Your task to perform on an android device: Add razer thresher to the cart on ebay.com Image 0: 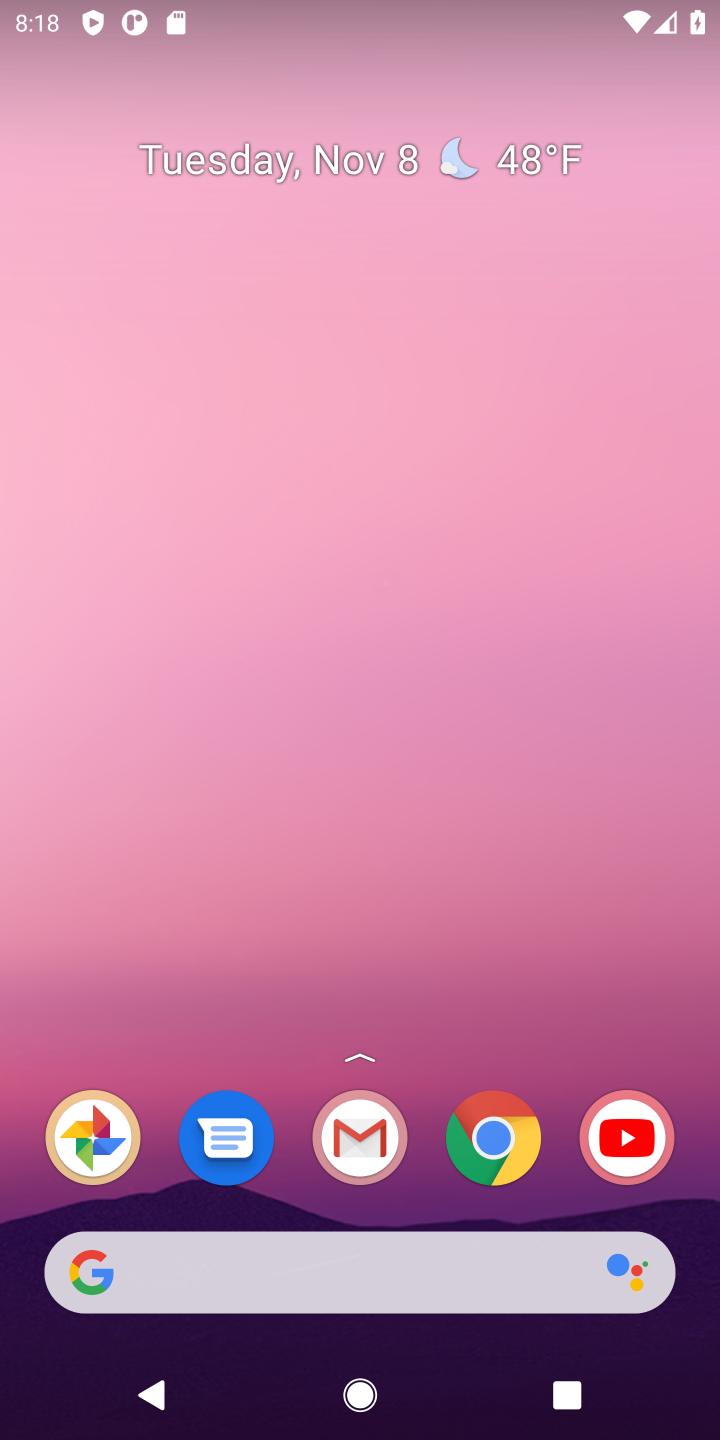
Step 0: click (474, 1132)
Your task to perform on an android device: Add razer thresher to the cart on ebay.com Image 1: 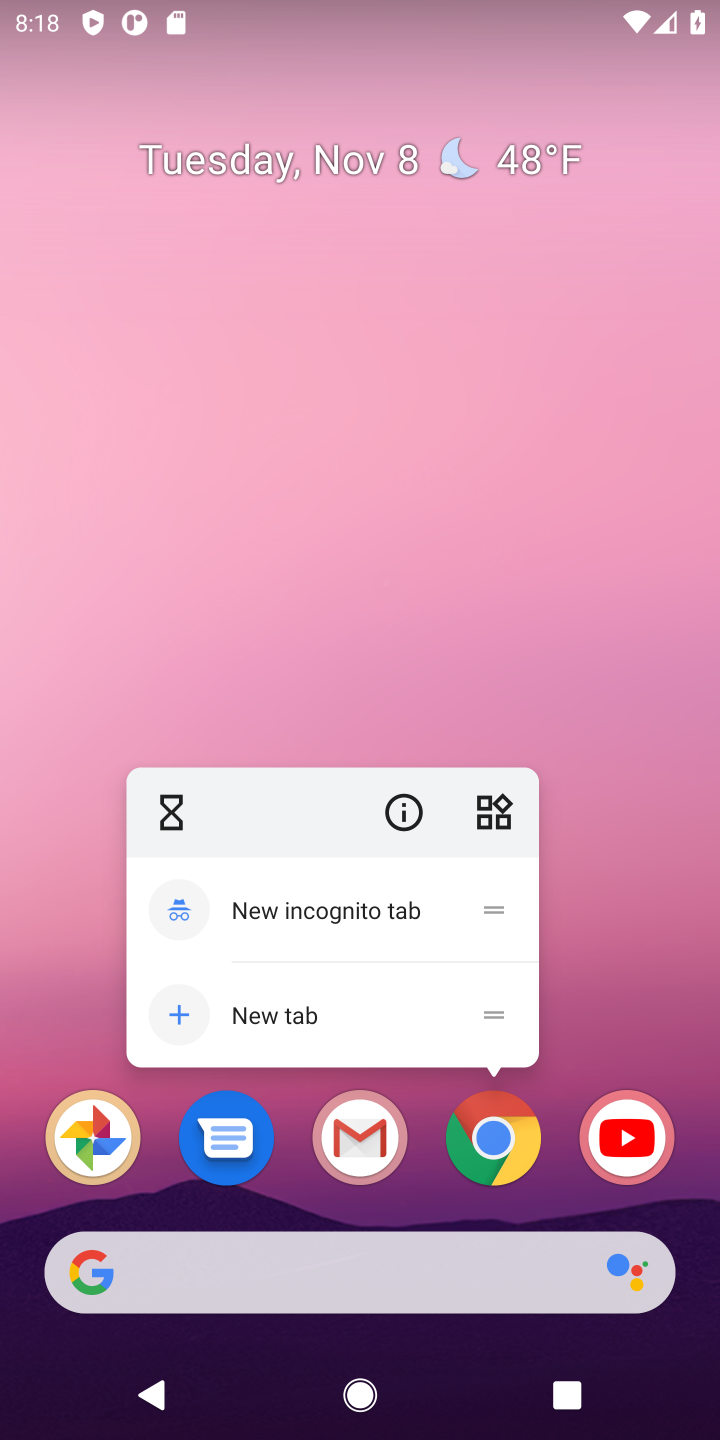
Step 1: click (506, 1131)
Your task to perform on an android device: Add razer thresher to the cart on ebay.com Image 2: 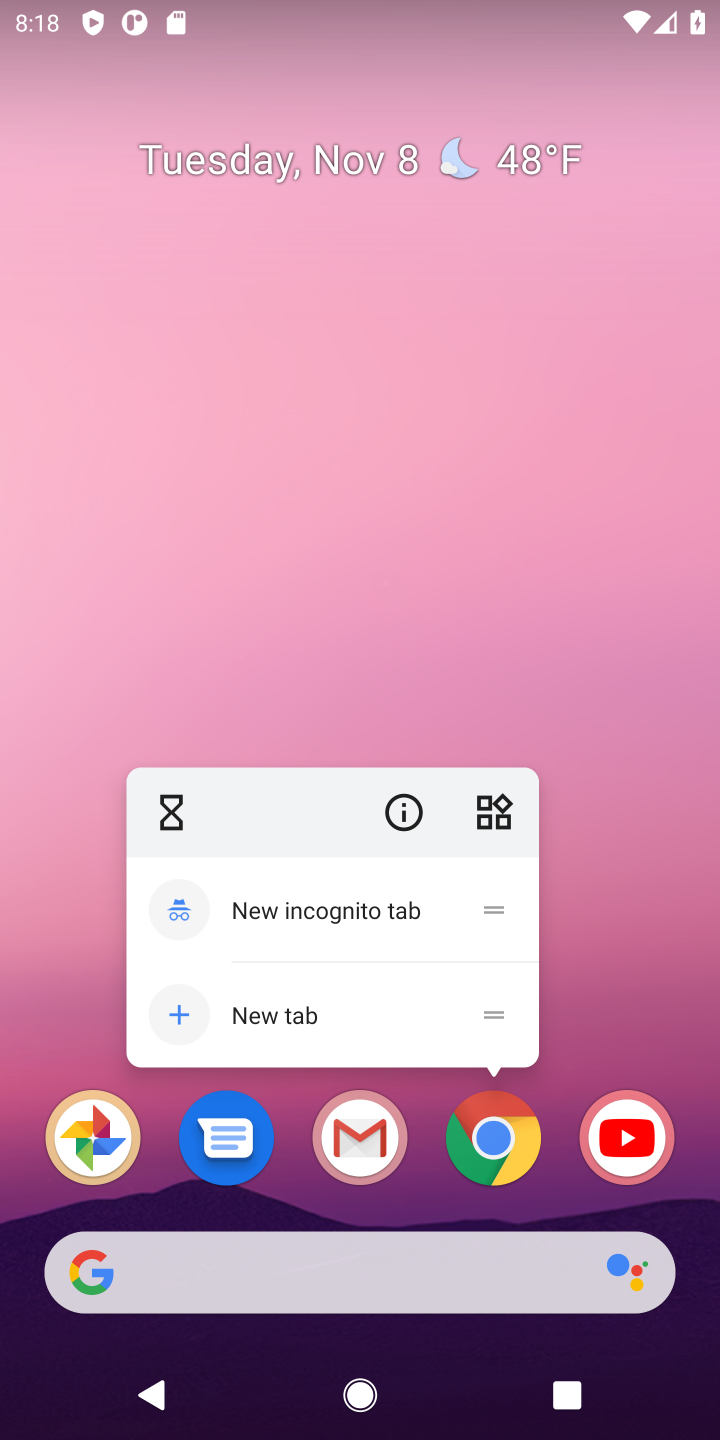
Step 2: click (508, 1141)
Your task to perform on an android device: Add razer thresher to the cart on ebay.com Image 3: 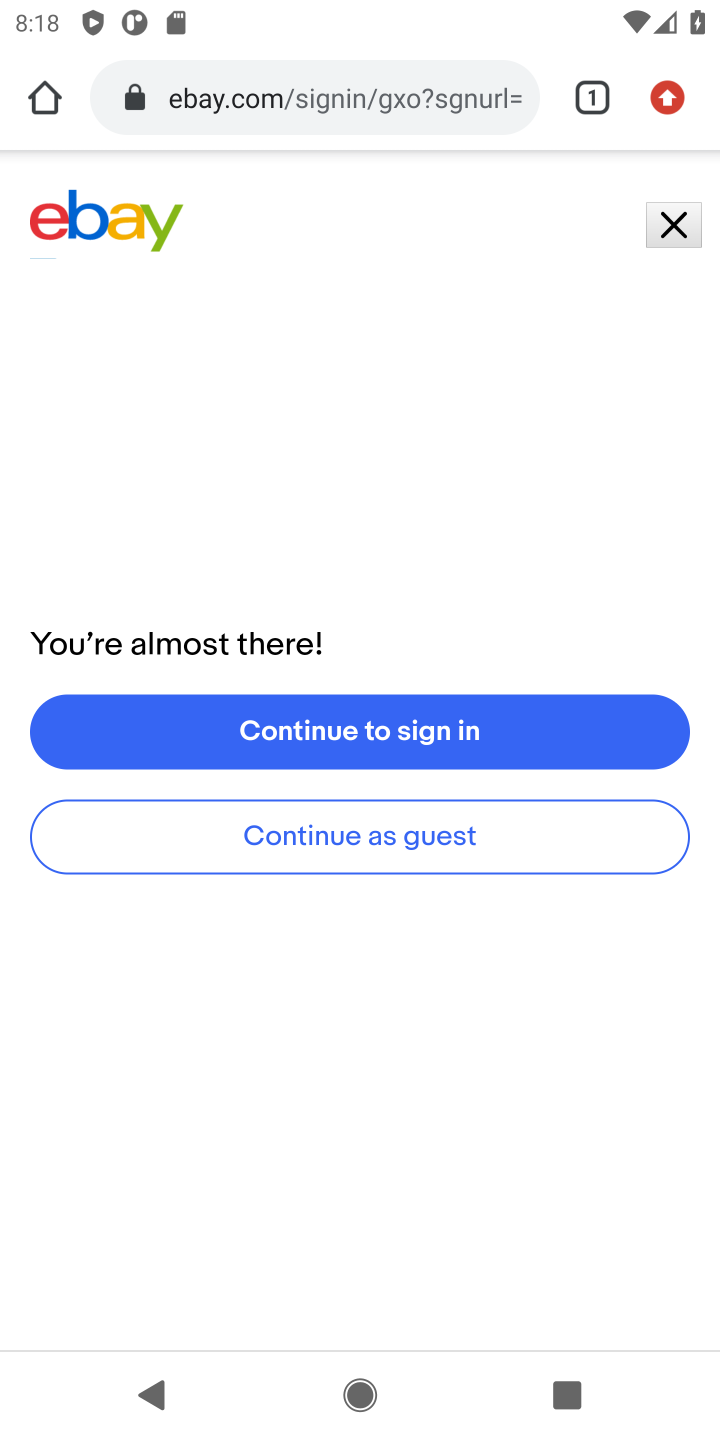
Step 3: click (661, 220)
Your task to perform on an android device: Add razer thresher to the cart on ebay.com Image 4: 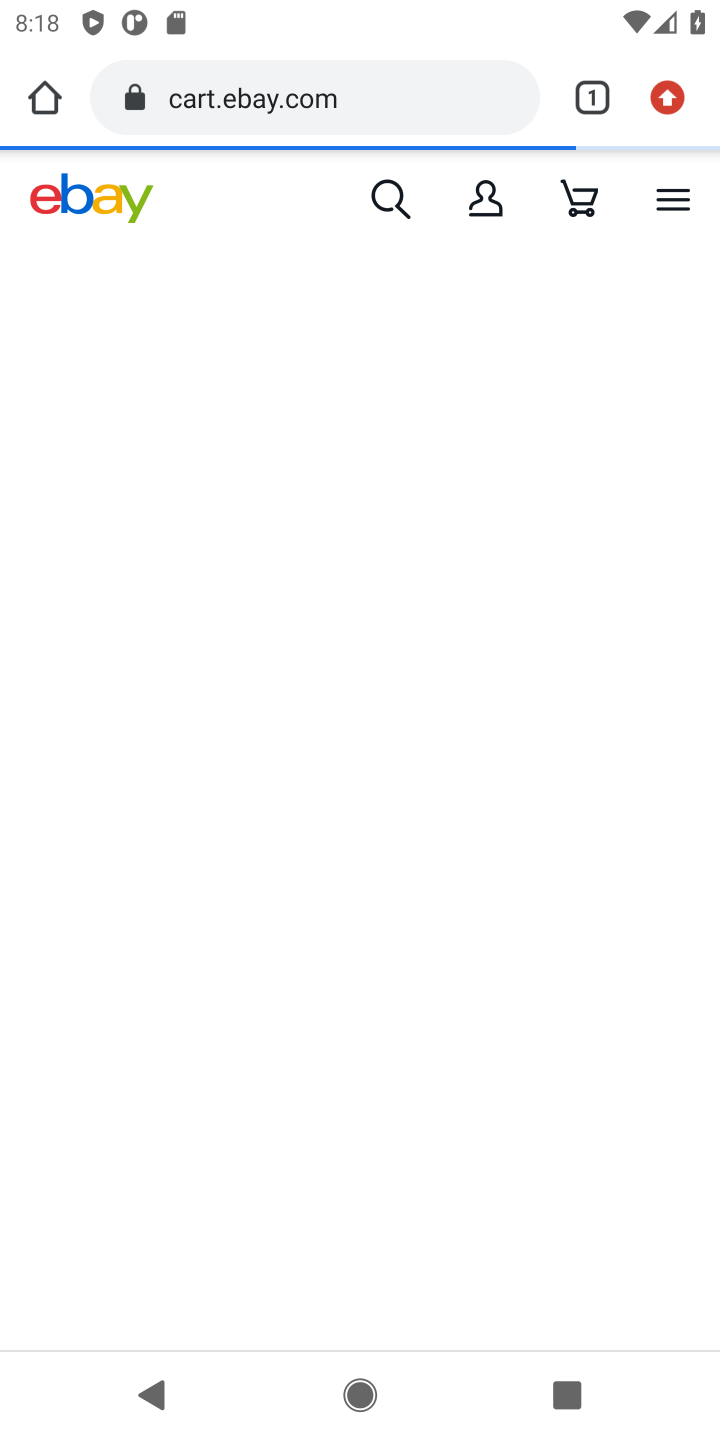
Step 4: drag from (367, 269) to (424, 1103)
Your task to perform on an android device: Add razer thresher to the cart on ebay.com Image 5: 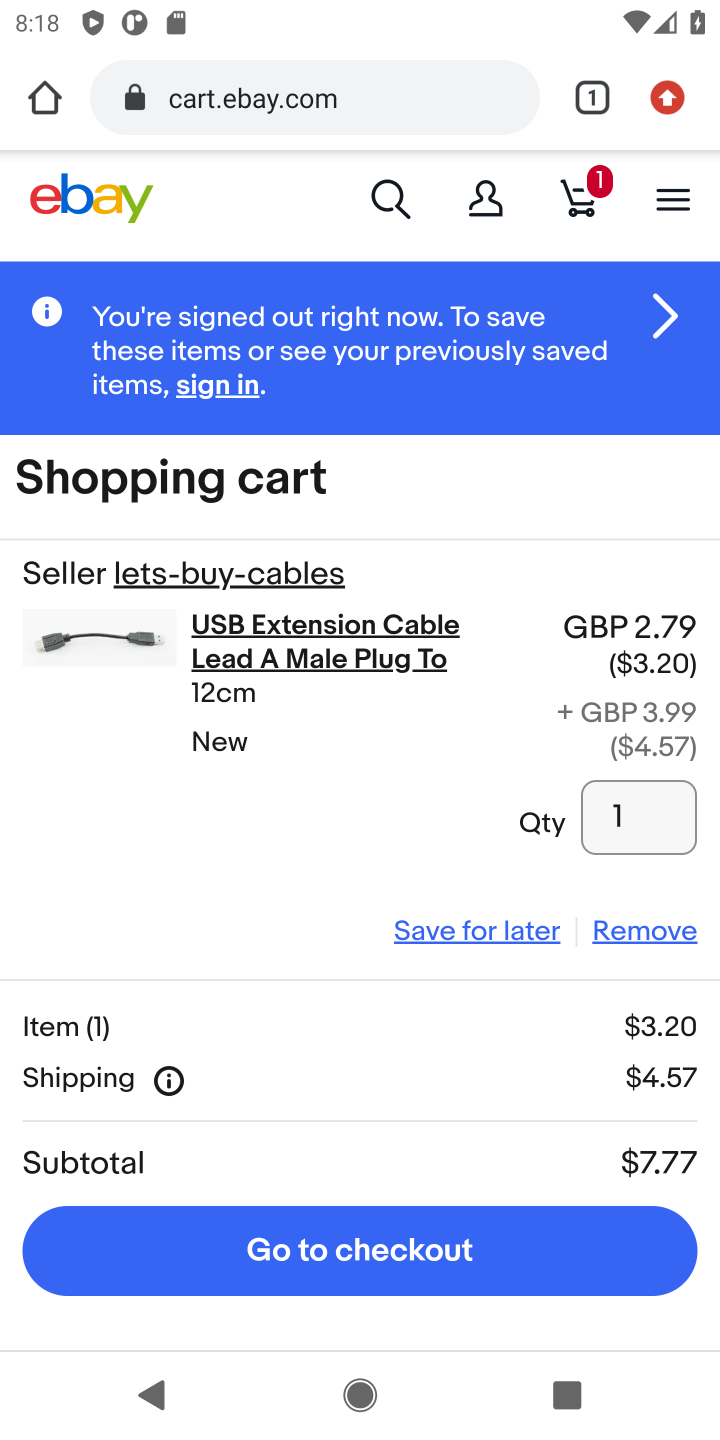
Step 5: click (392, 187)
Your task to perform on an android device: Add razer thresher to the cart on ebay.com Image 6: 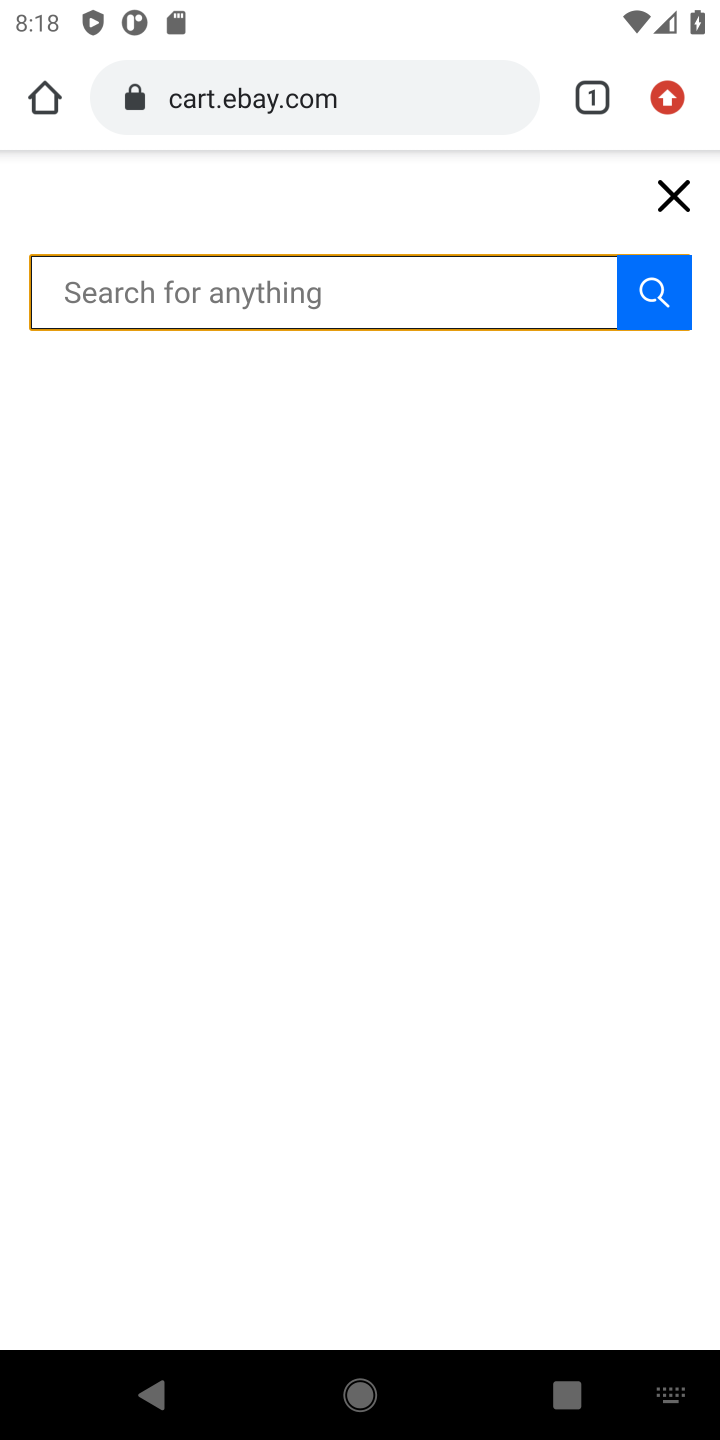
Step 6: click (68, 288)
Your task to perform on an android device: Add razer thresher to the cart on ebay.com Image 7: 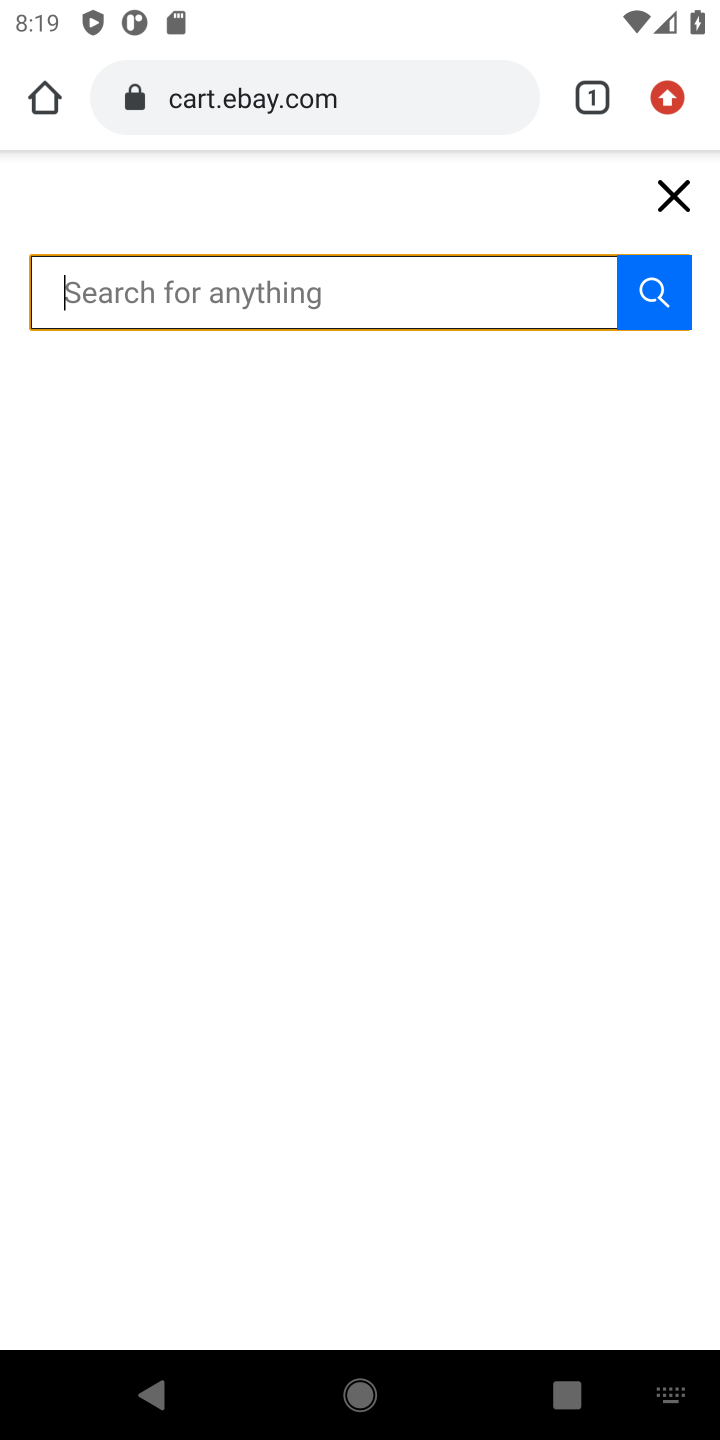
Step 7: type "razer thresher"
Your task to perform on an android device: Add razer thresher to the cart on ebay.com Image 8: 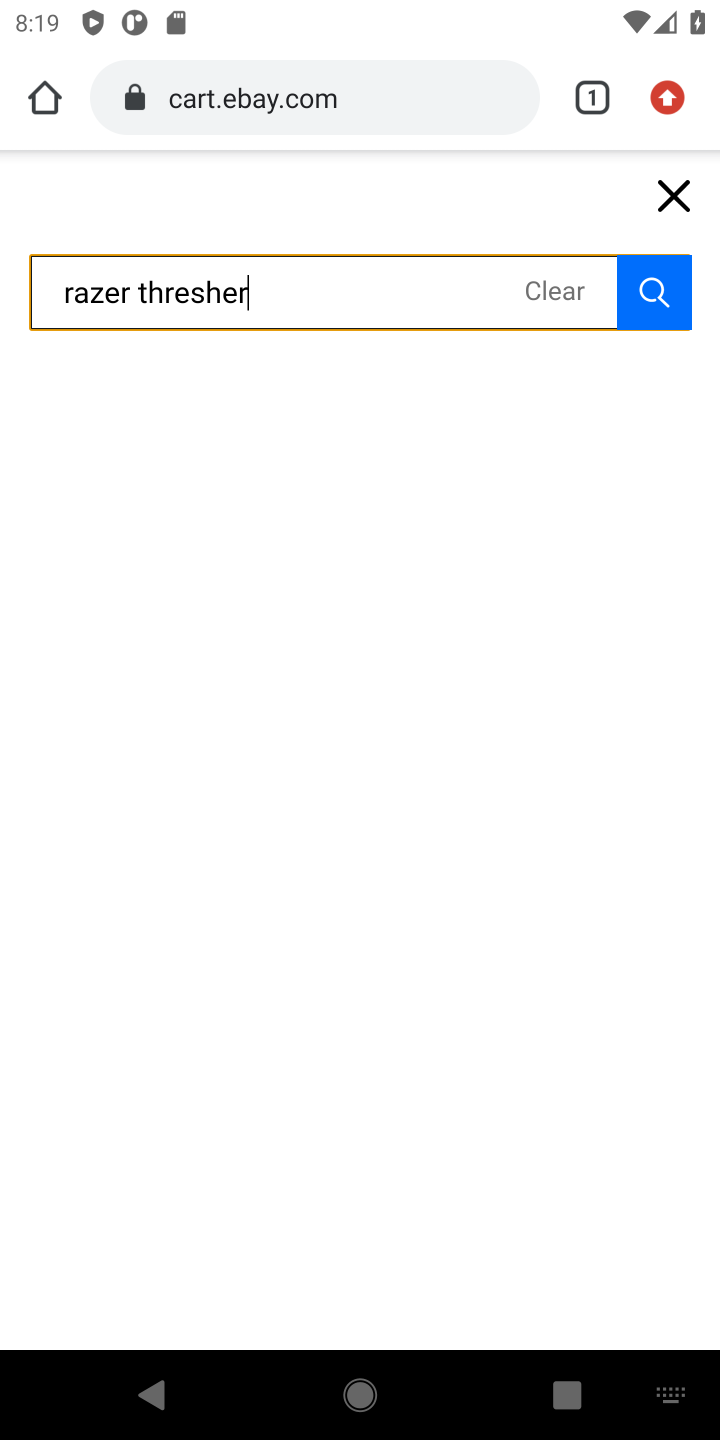
Step 8: press enter
Your task to perform on an android device: Add razer thresher to the cart on ebay.com Image 9: 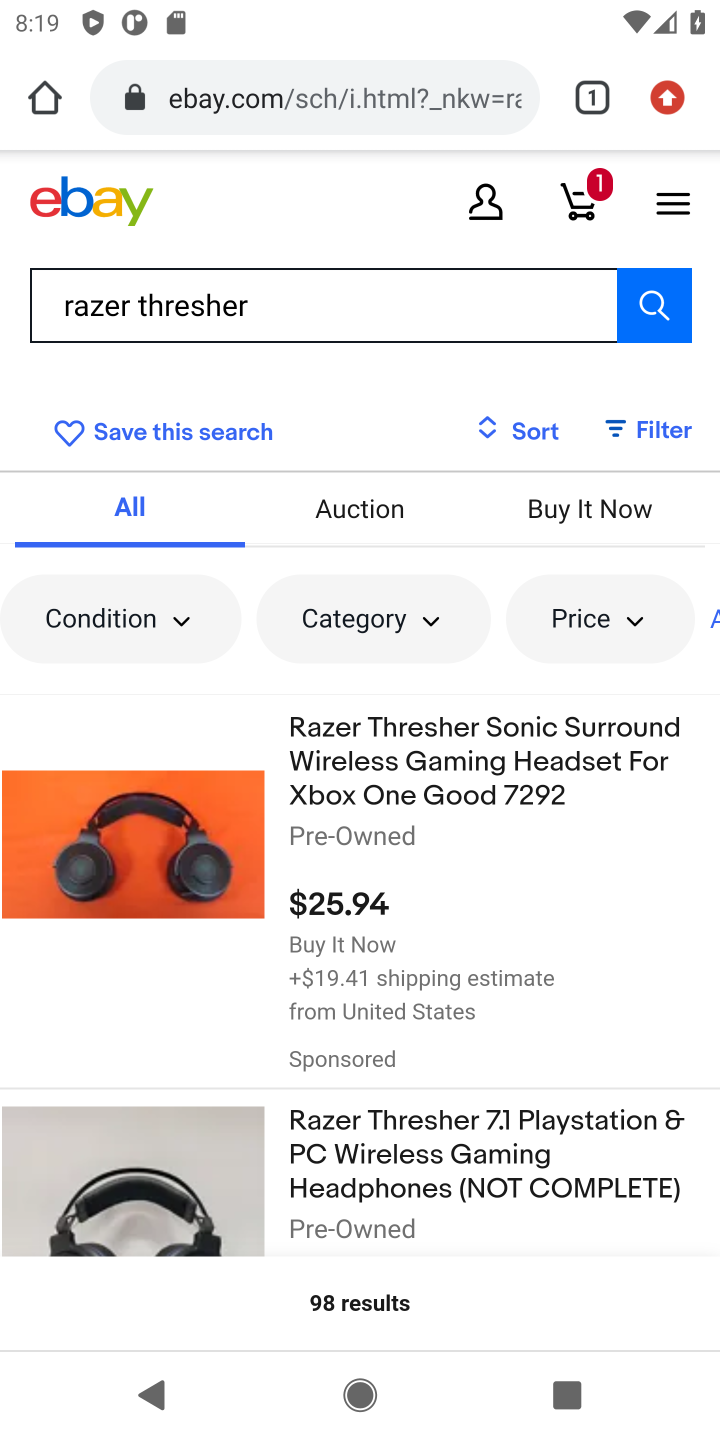
Step 9: click (459, 767)
Your task to perform on an android device: Add razer thresher to the cart on ebay.com Image 10: 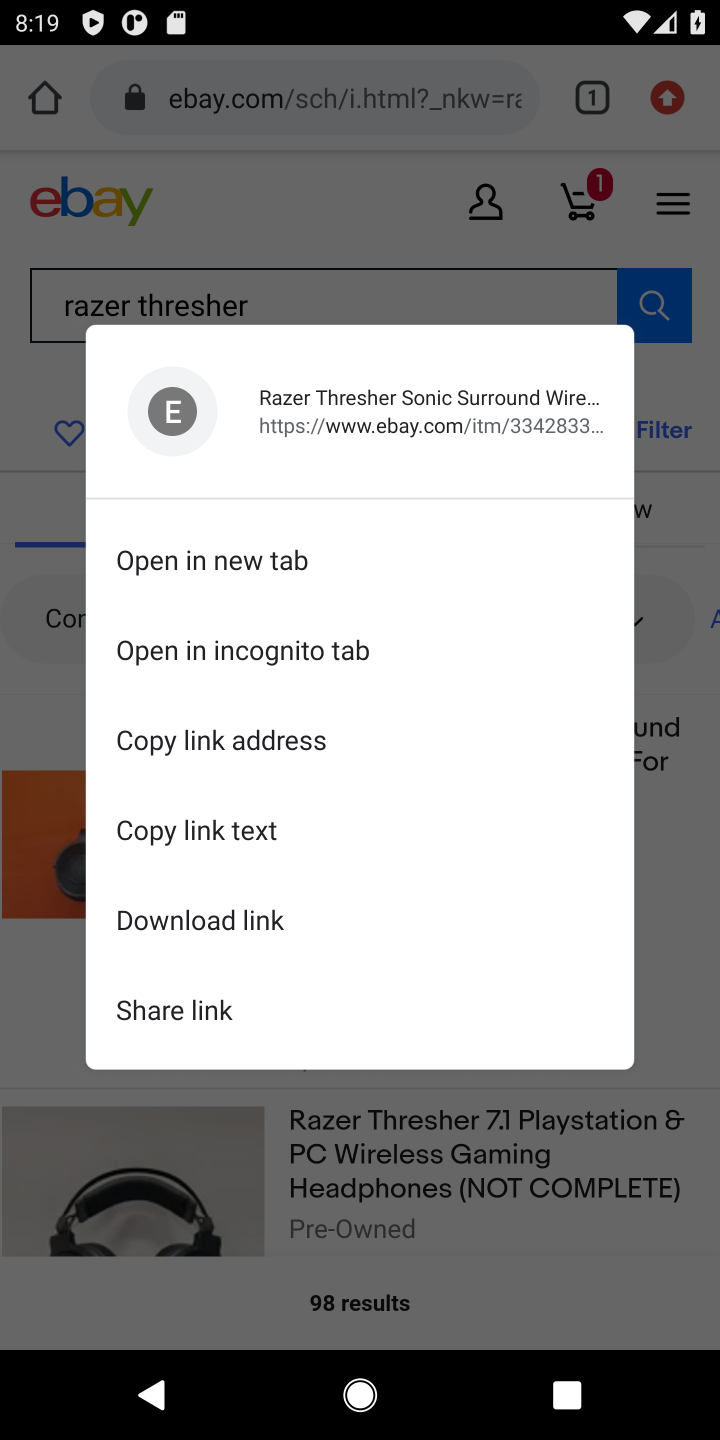
Step 10: click (657, 755)
Your task to perform on an android device: Add razer thresher to the cart on ebay.com Image 11: 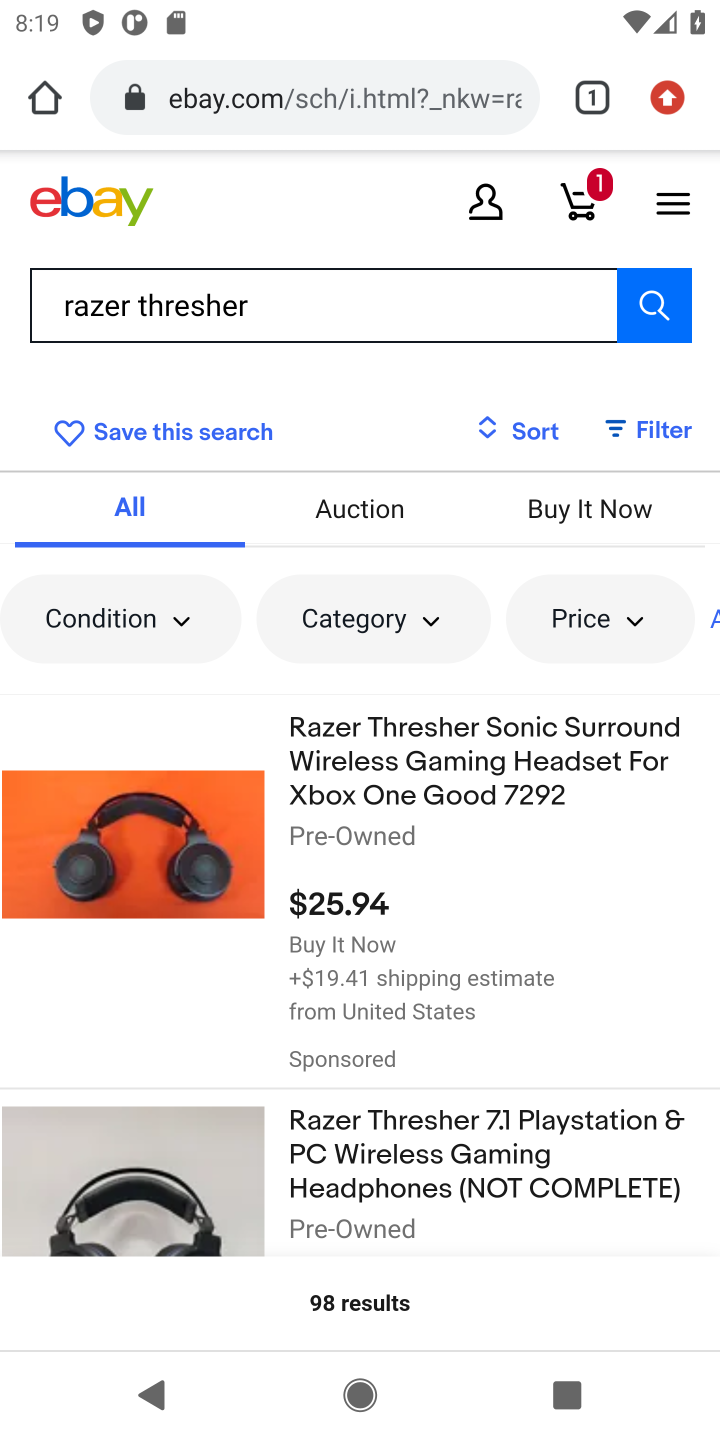
Step 11: click (392, 794)
Your task to perform on an android device: Add razer thresher to the cart on ebay.com Image 12: 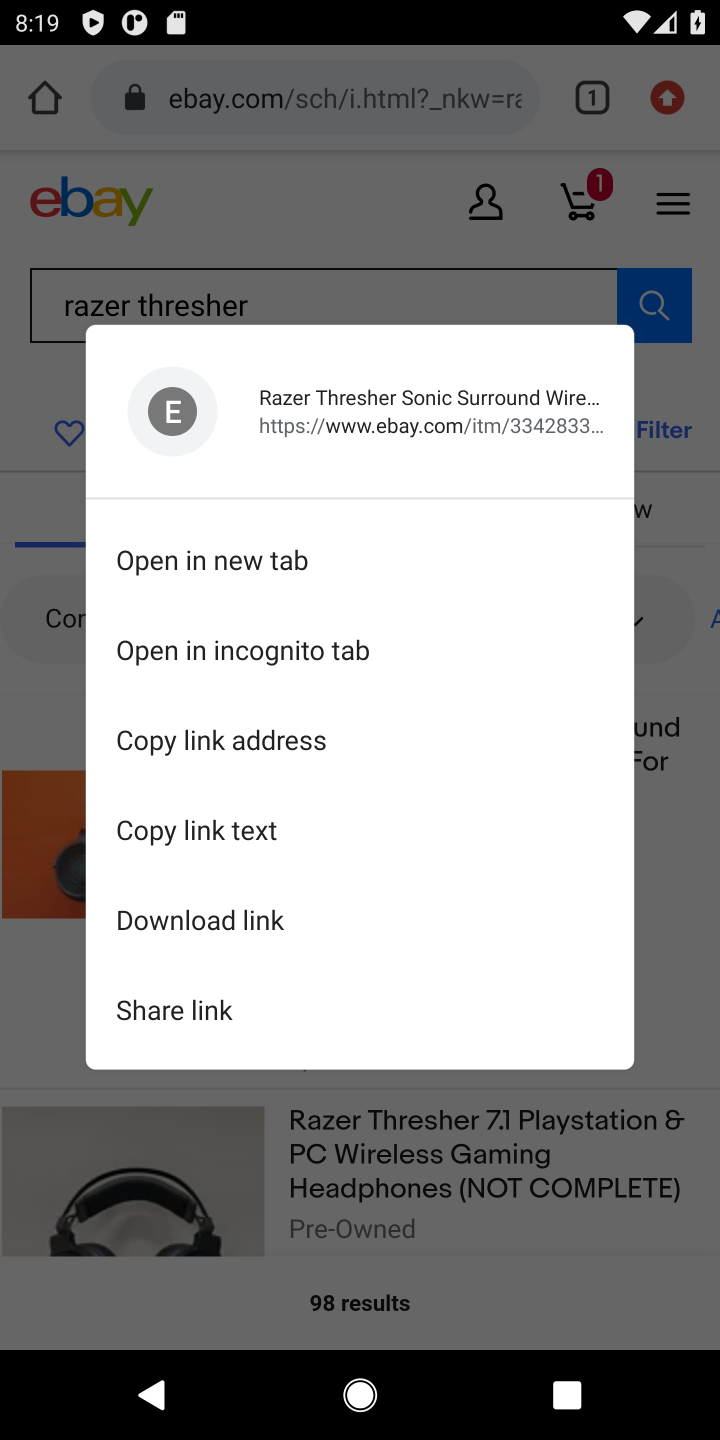
Step 12: click (655, 794)
Your task to perform on an android device: Add razer thresher to the cart on ebay.com Image 13: 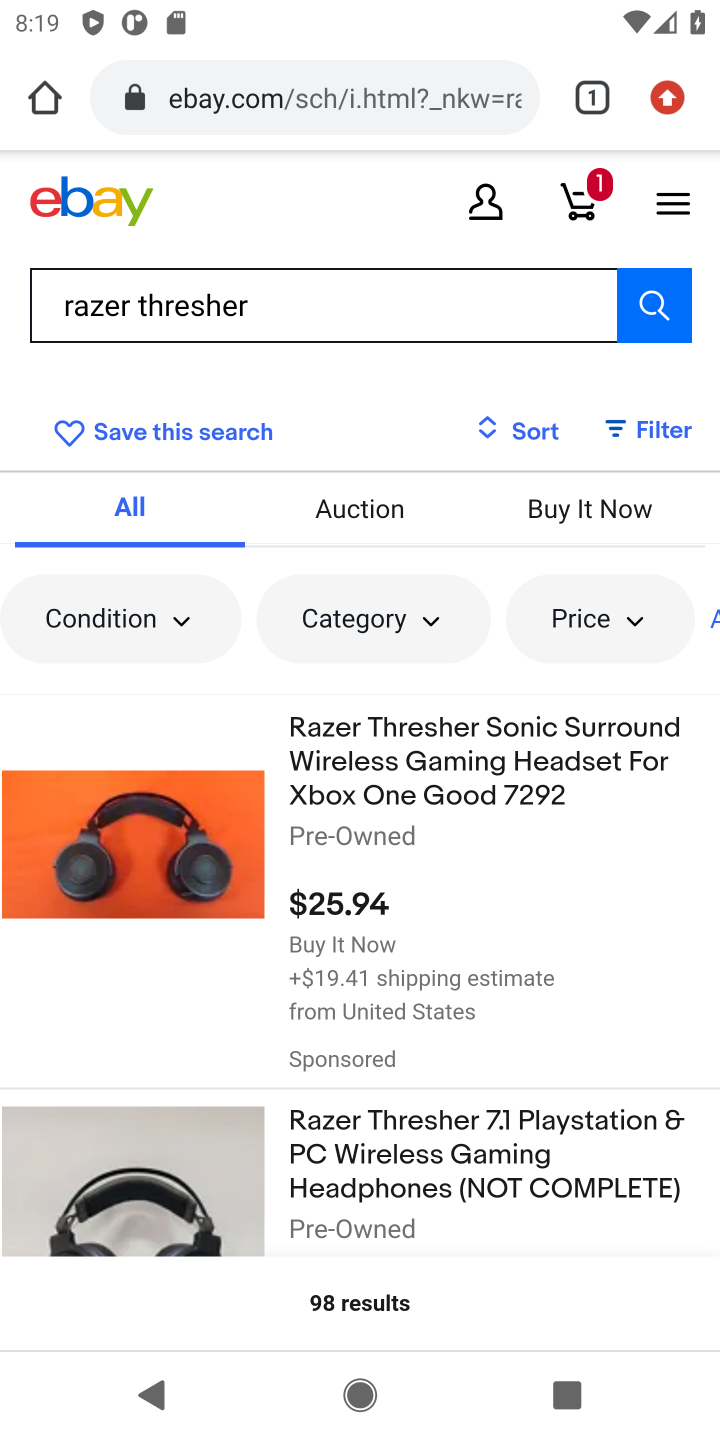
Step 13: click (311, 774)
Your task to perform on an android device: Add razer thresher to the cart on ebay.com Image 14: 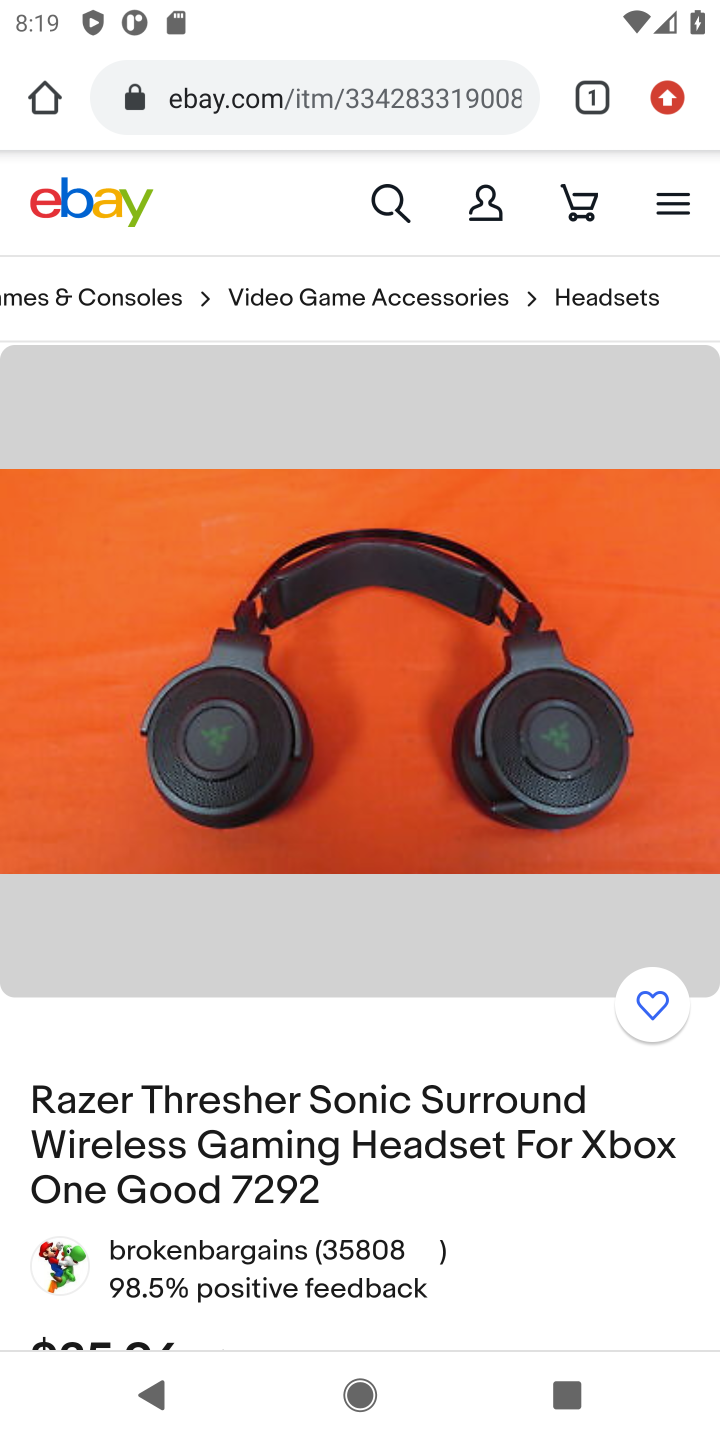
Step 14: drag from (340, 1244) to (432, 450)
Your task to perform on an android device: Add razer thresher to the cart on ebay.com Image 15: 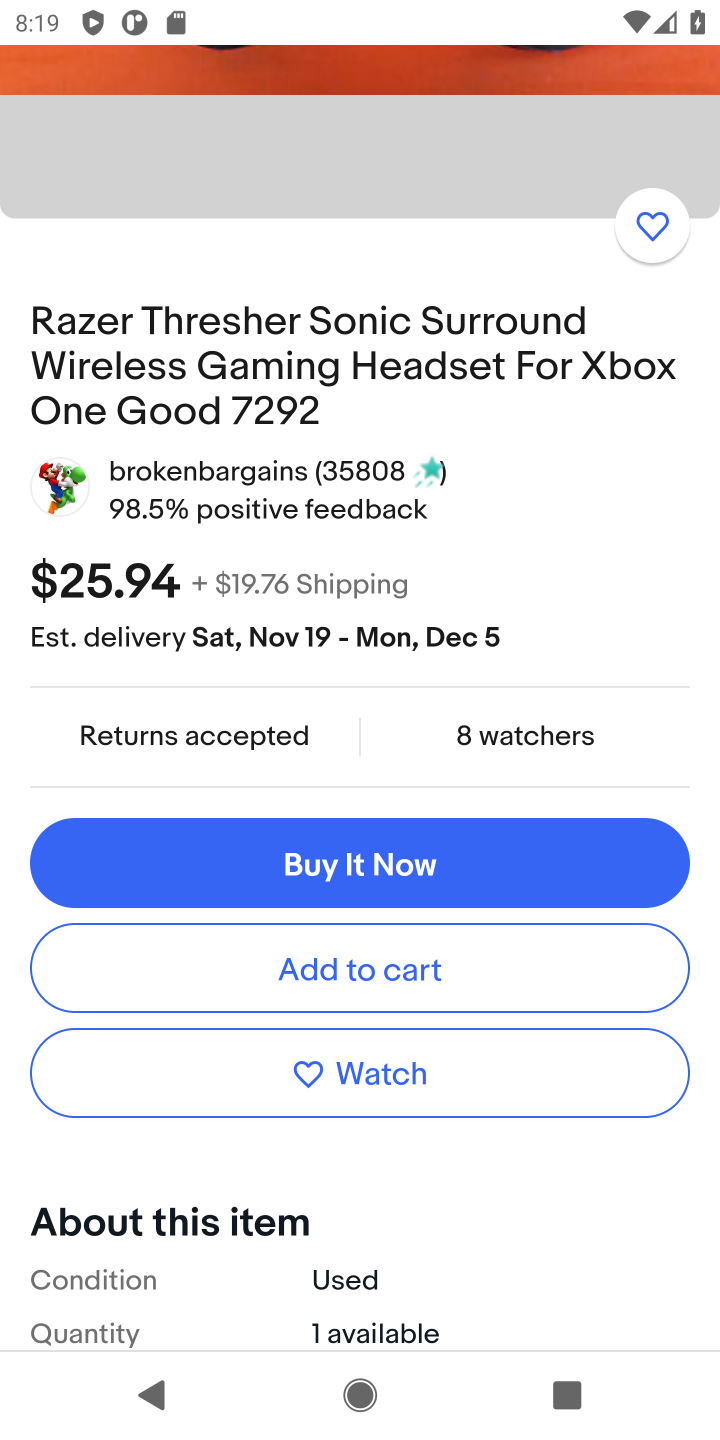
Step 15: click (384, 967)
Your task to perform on an android device: Add razer thresher to the cart on ebay.com Image 16: 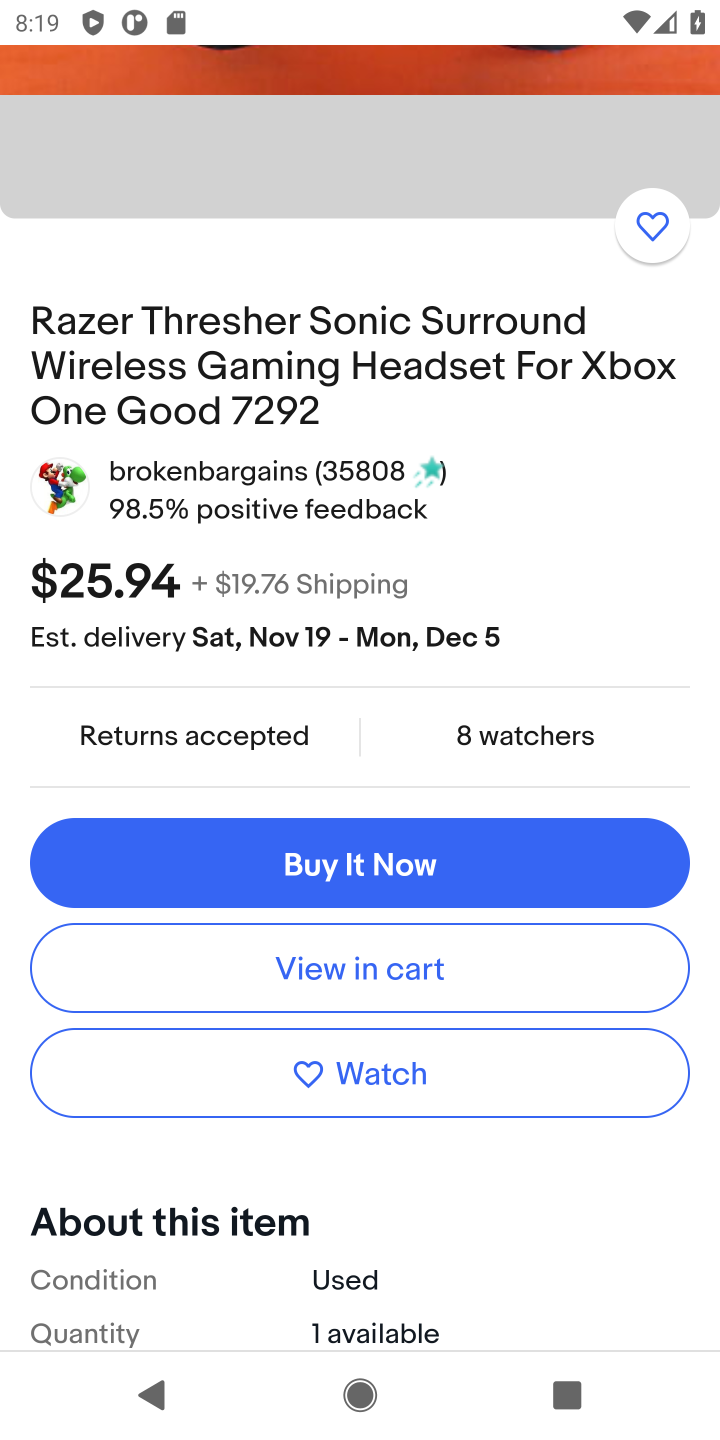
Step 16: click (379, 968)
Your task to perform on an android device: Add razer thresher to the cart on ebay.com Image 17: 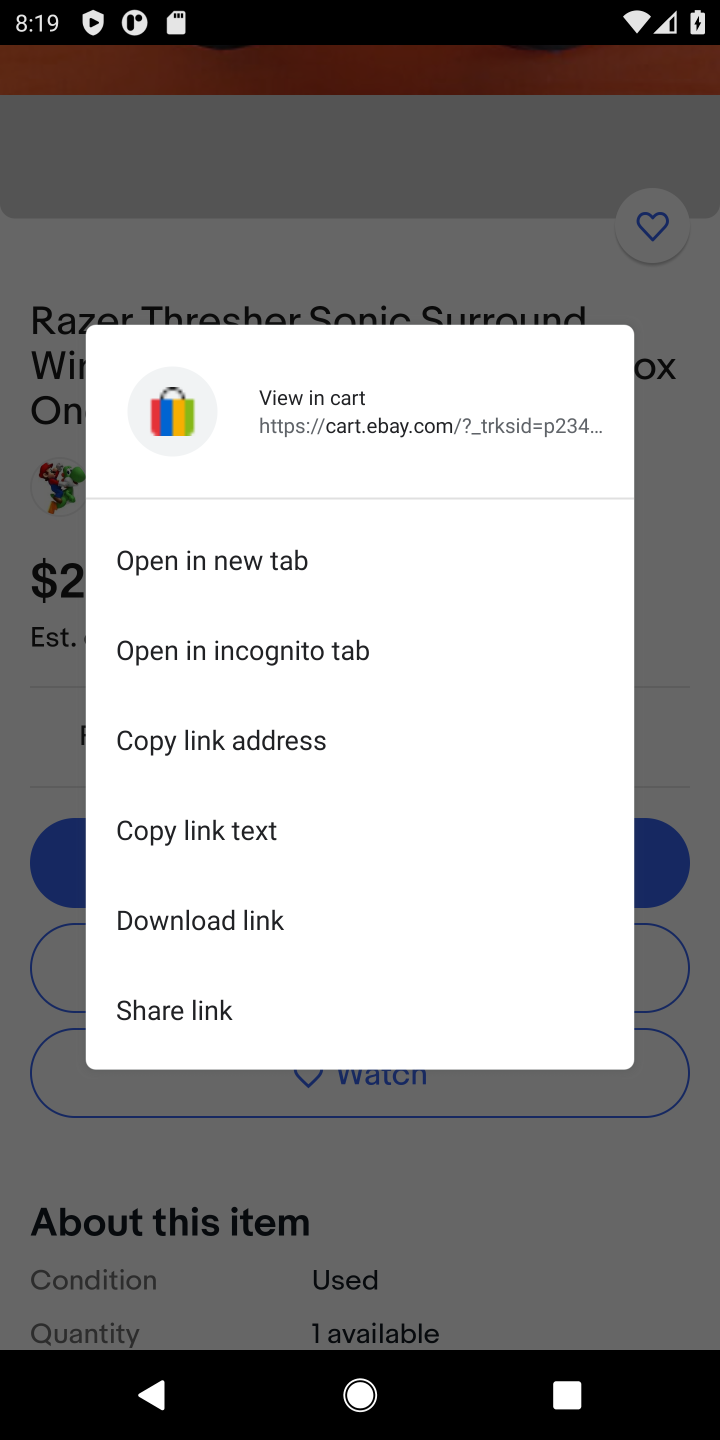
Step 17: click (655, 981)
Your task to perform on an android device: Add razer thresher to the cart on ebay.com Image 18: 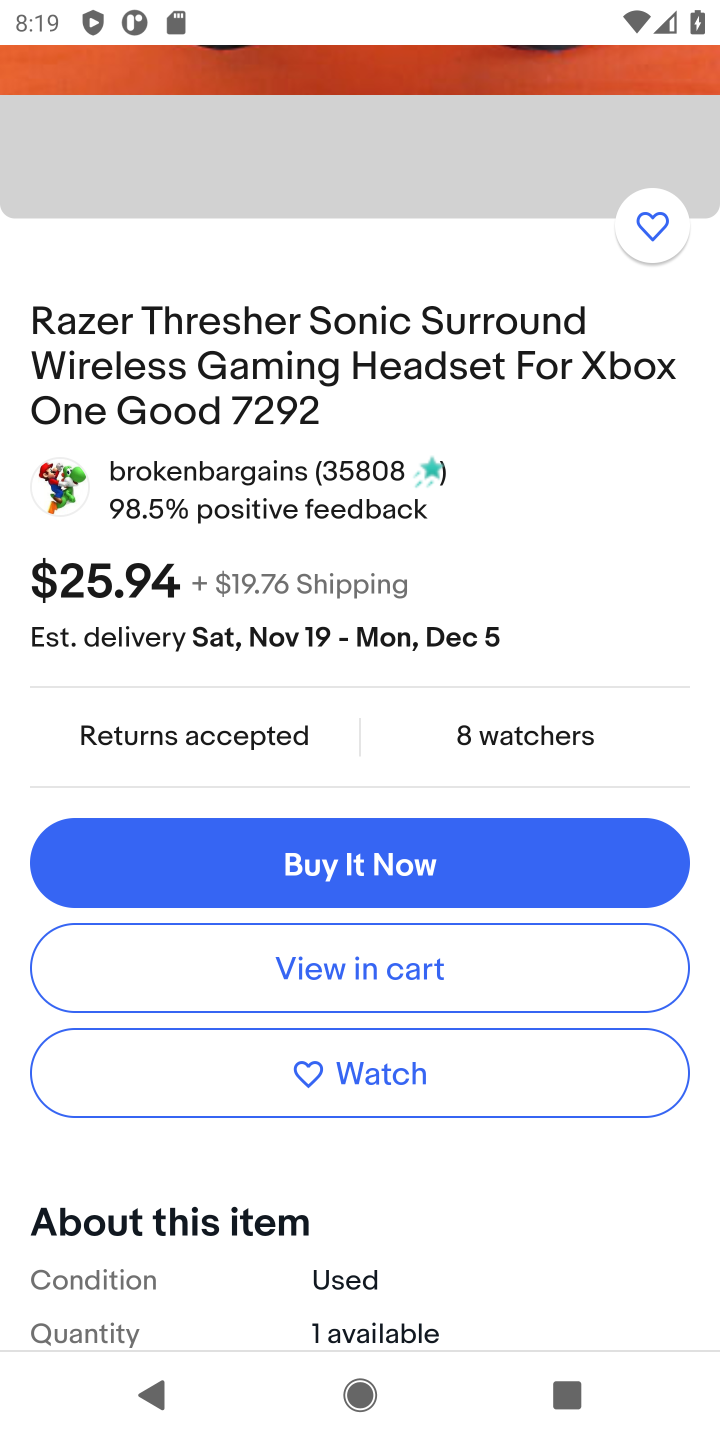
Step 18: click (380, 965)
Your task to perform on an android device: Add razer thresher to the cart on ebay.com Image 19: 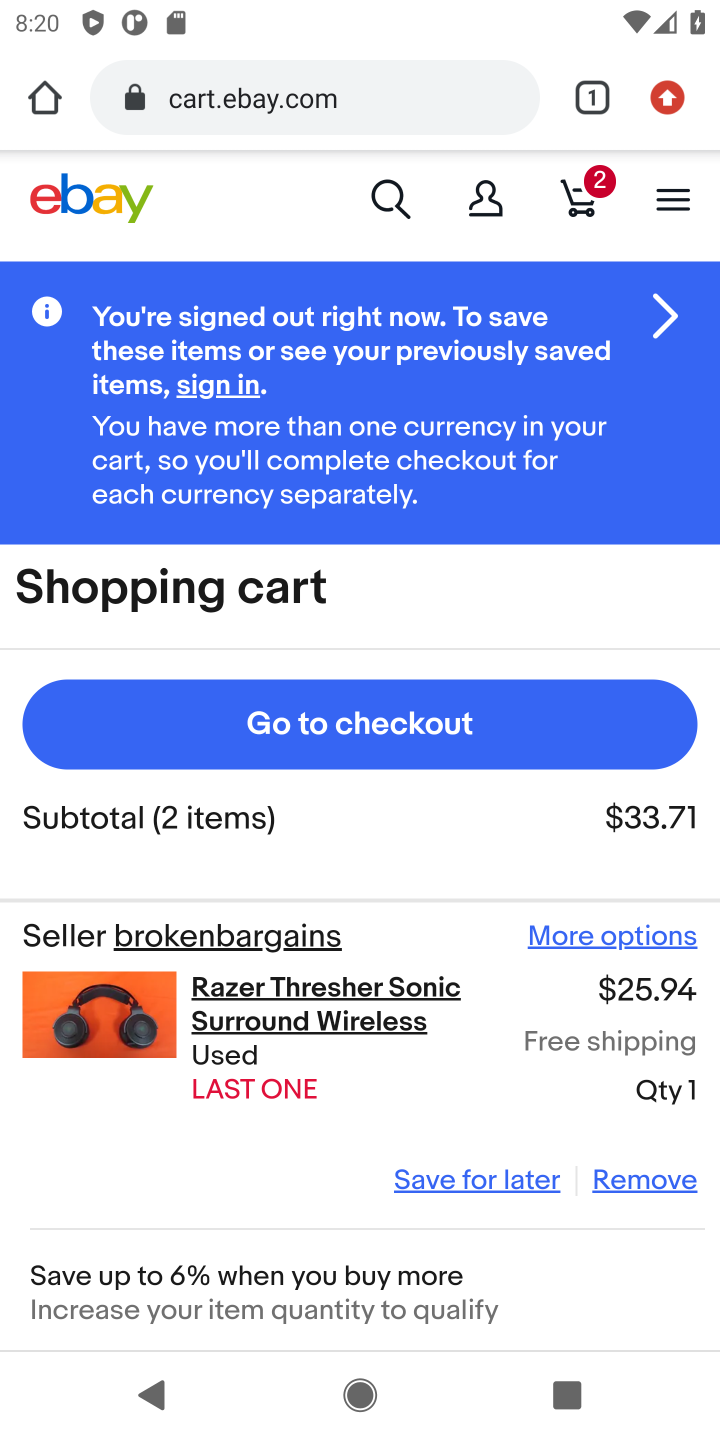
Step 19: task complete